Your task to perform on an android device: Open Android settings Image 0: 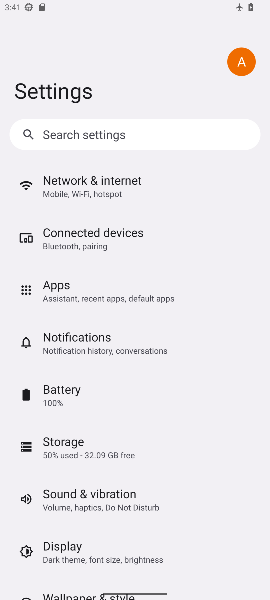
Step 0: drag from (120, 474) to (84, 220)
Your task to perform on an android device: Open Android settings Image 1: 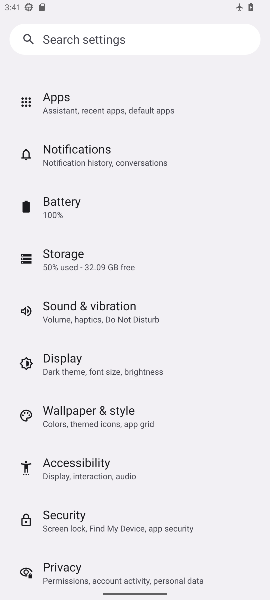
Step 1: task complete